Your task to perform on an android device: Search for Italian restaurants on Maps Image 0: 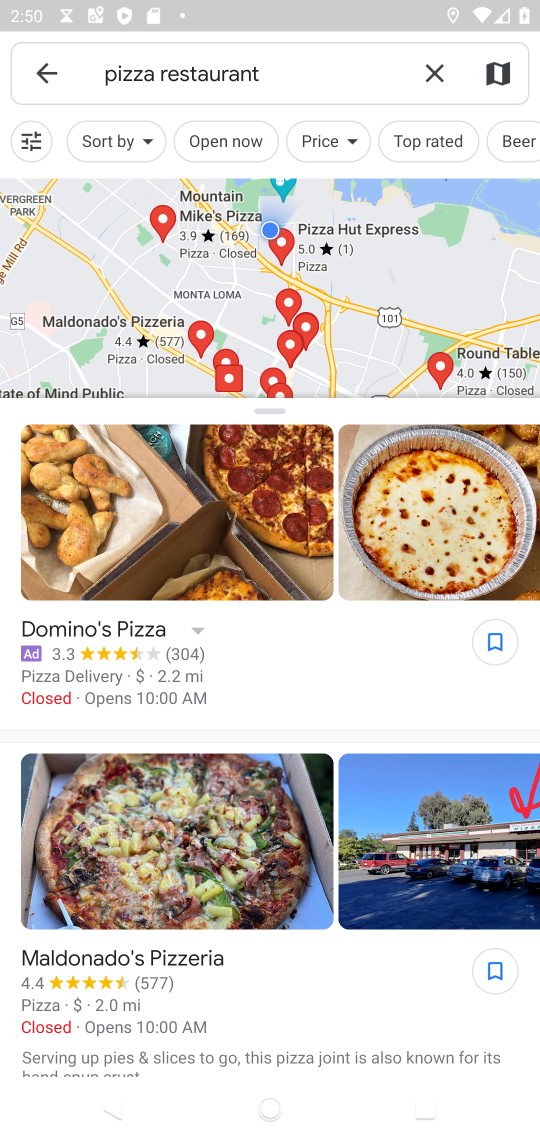
Step 0: press home button
Your task to perform on an android device: Search for Italian restaurants on Maps Image 1: 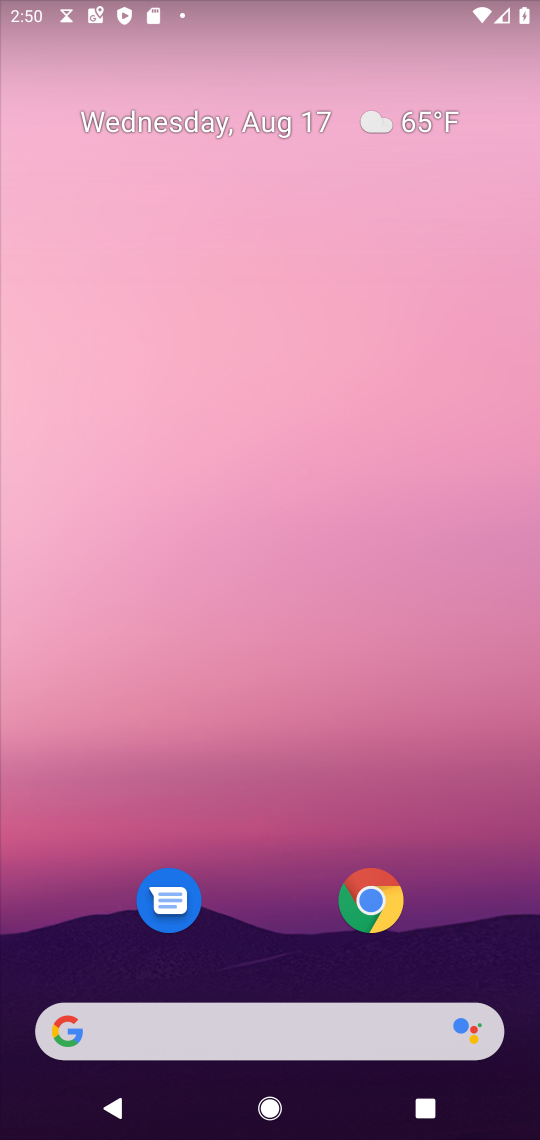
Step 1: drag from (267, 1025) to (291, 213)
Your task to perform on an android device: Search for Italian restaurants on Maps Image 2: 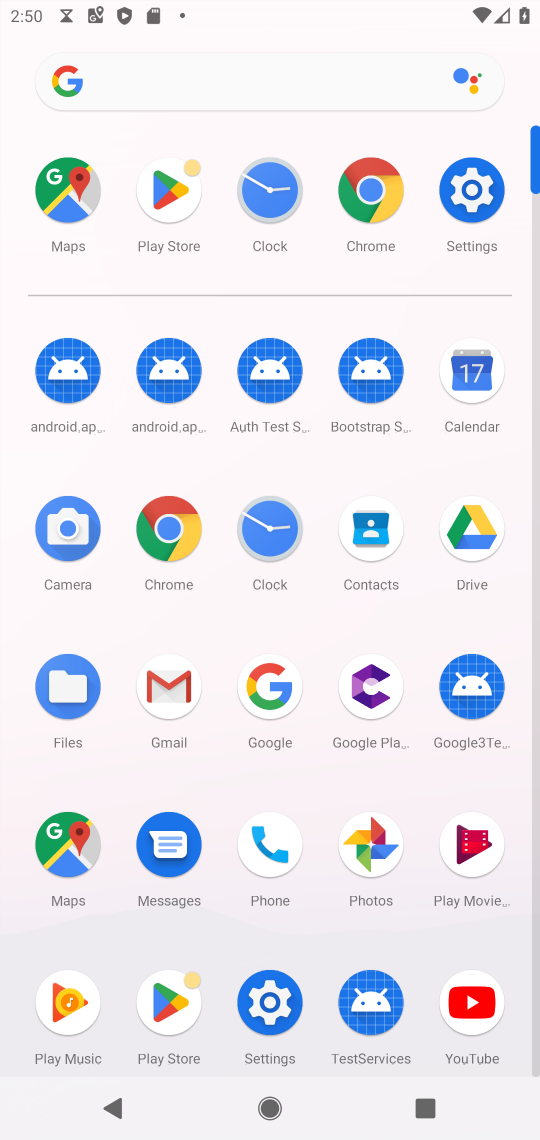
Step 2: click (61, 200)
Your task to perform on an android device: Search for Italian restaurants on Maps Image 3: 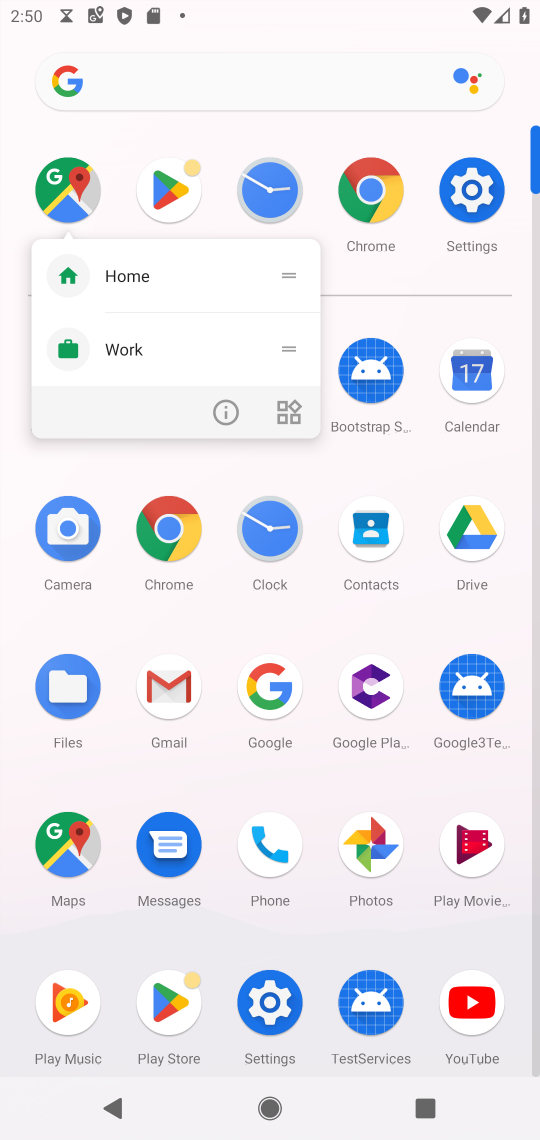
Step 3: click (61, 201)
Your task to perform on an android device: Search for Italian restaurants on Maps Image 4: 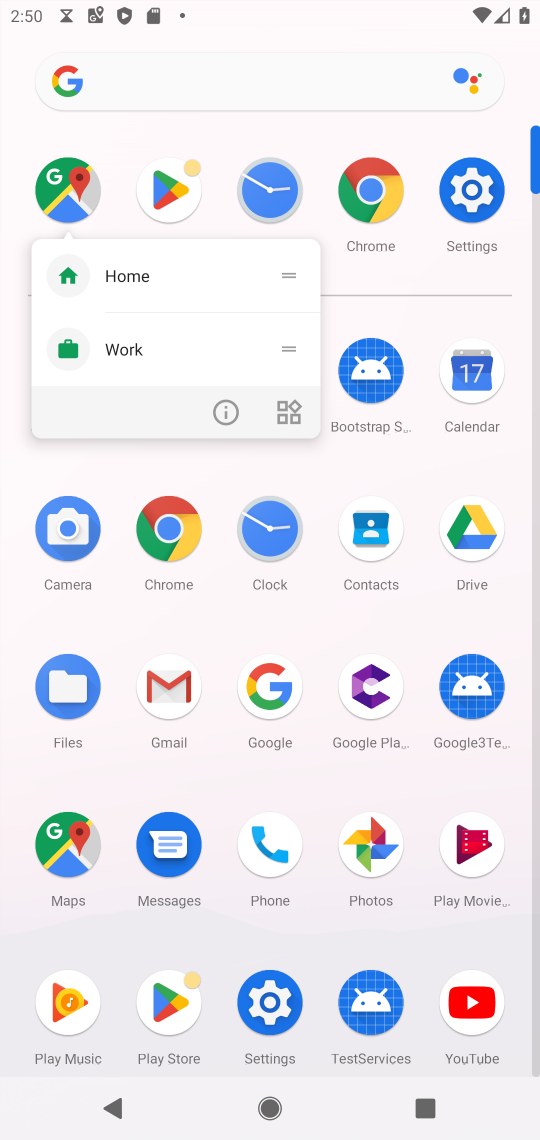
Step 4: click (67, 185)
Your task to perform on an android device: Search for Italian restaurants on Maps Image 5: 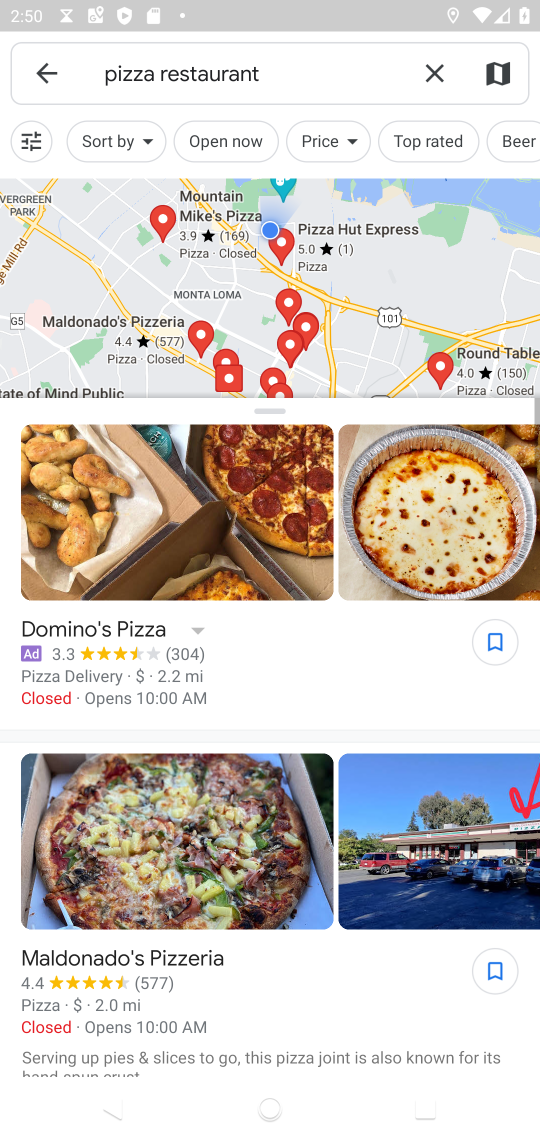
Step 5: click (423, 78)
Your task to perform on an android device: Search for Italian restaurants on Maps Image 6: 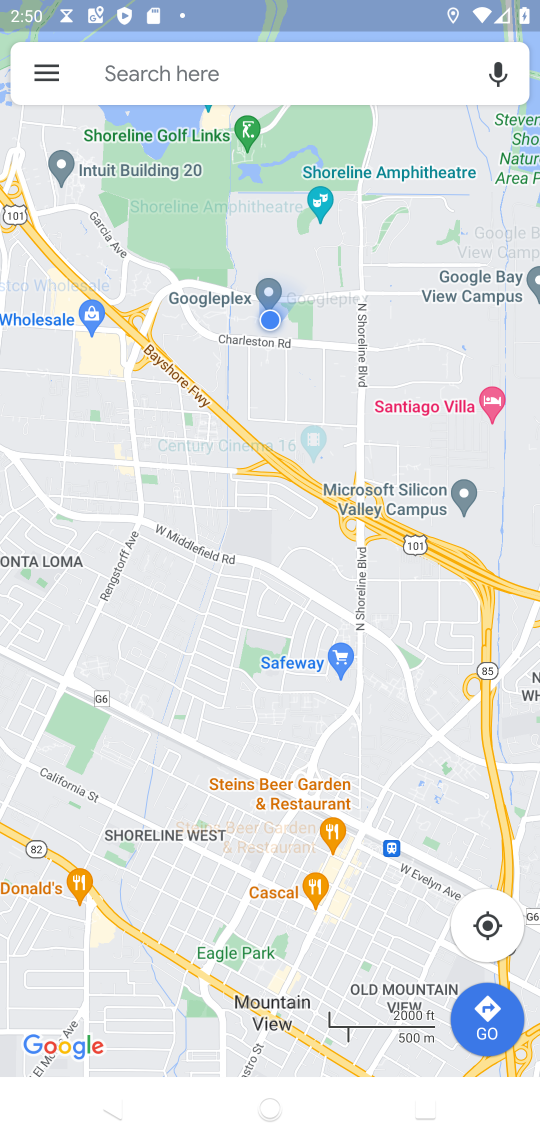
Step 6: click (192, 83)
Your task to perform on an android device: Search for Italian restaurants on Maps Image 7: 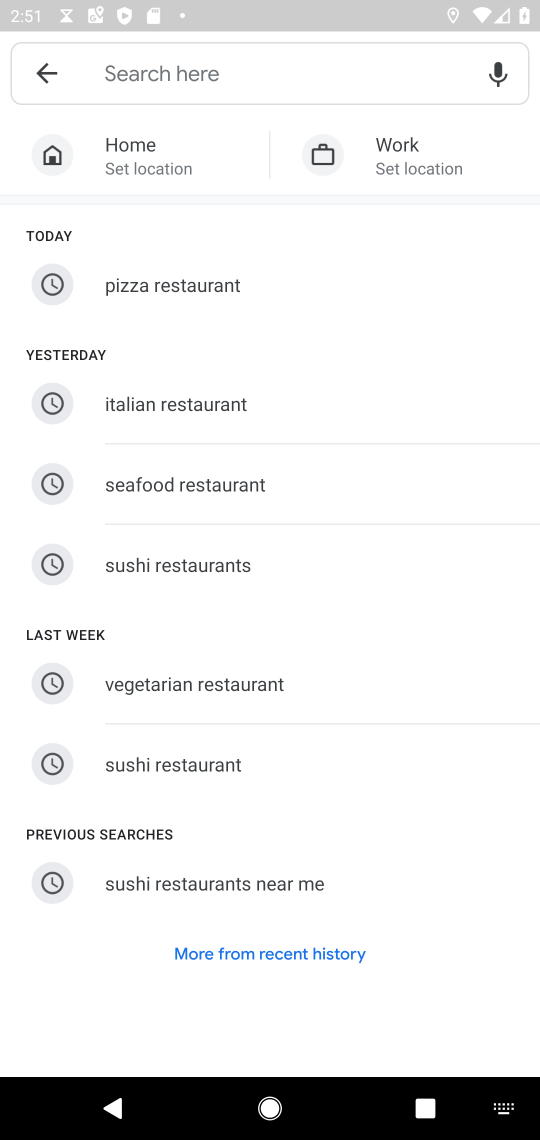
Step 7: click (124, 403)
Your task to perform on an android device: Search for Italian restaurants on Maps Image 8: 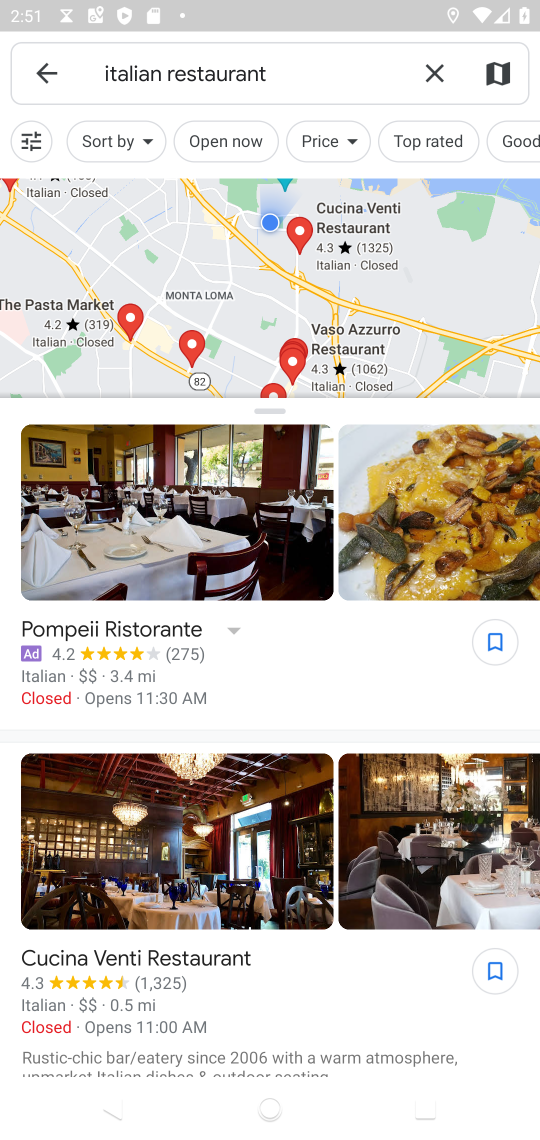
Step 8: task complete